Your task to perform on an android device: see creations saved in the google photos Image 0: 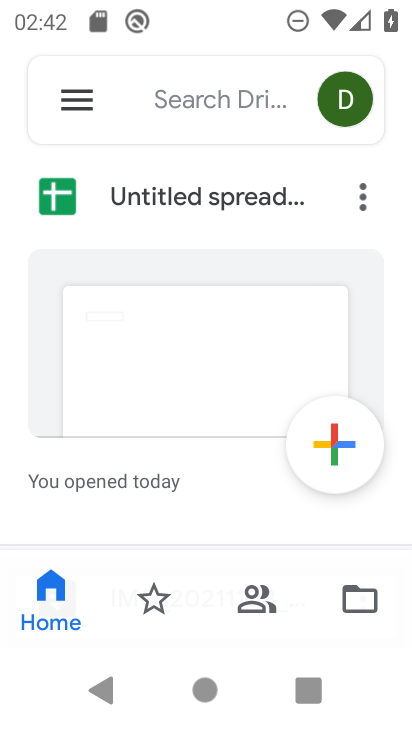
Step 0: press home button
Your task to perform on an android device: see creations saved in the google photos Image 1: 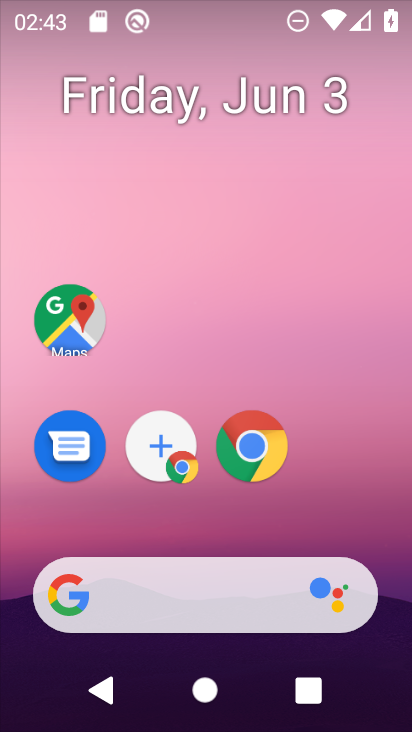
Step 1: drag from (233, 673) to (231, 141)
Your task to perform on an android device: see creations saved in the google photos Image 2: 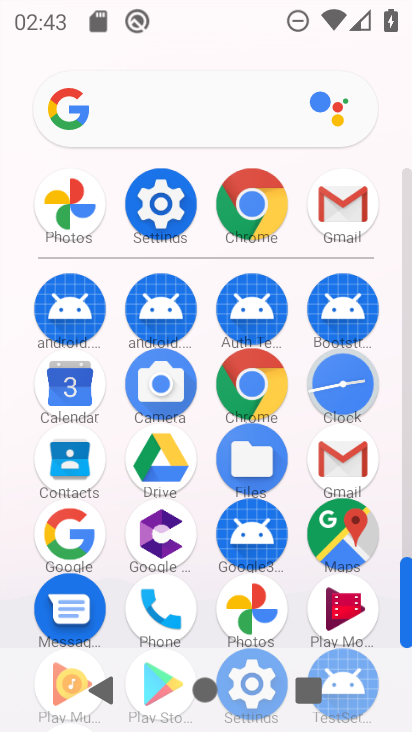
Step 2: click (249, 608)
Your task to perform on an android device: see creations saved in the google photos Image 3: 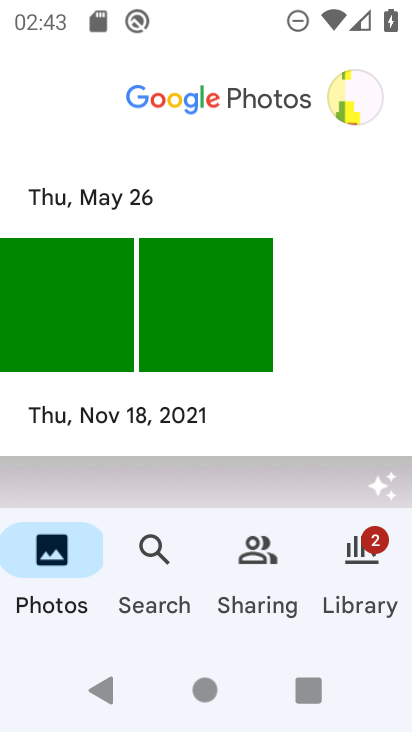
Step 3: click (142, 553)
Your task to perform on an android device: see creations saved in the google photos Image 4: 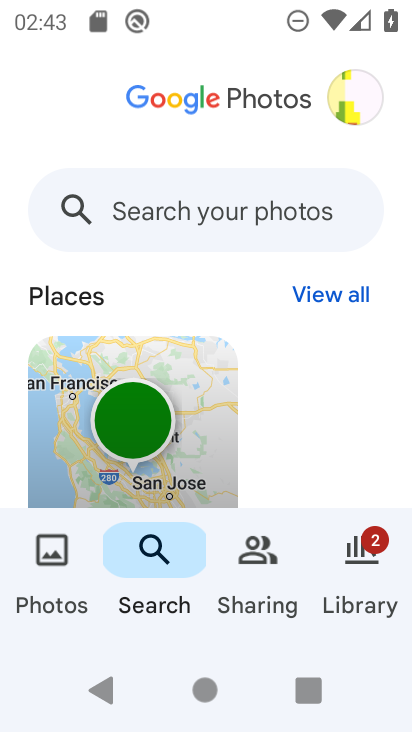
Step 4: click (168, 217)
Your task to perform on an android device: see creations saved in the google photos Image 5: 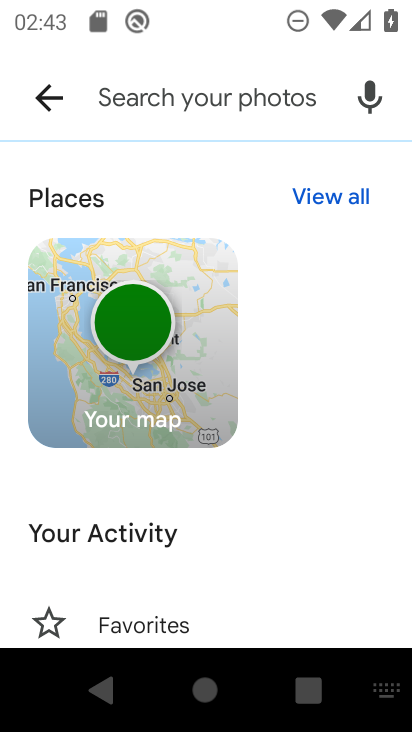
Step 5: drag from (262, 556) to (277, 89)
Your task to perform on an android device: see creations saved in the google photos Image 6: 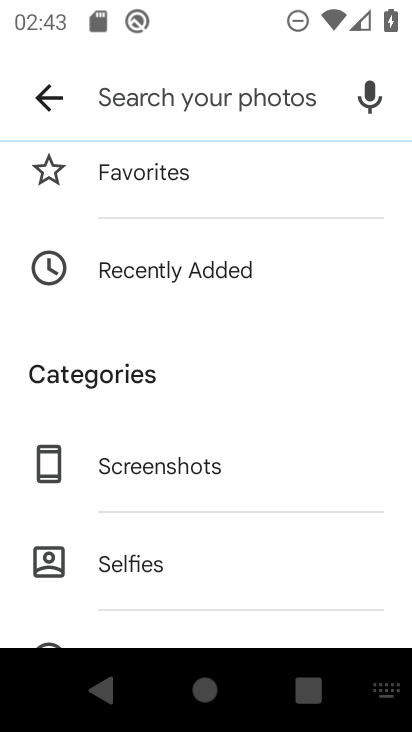
Step 6: drag from (266, 579) to (267, 120)
Your task to perform on an android device: see creations saved in the google photos Image 7: 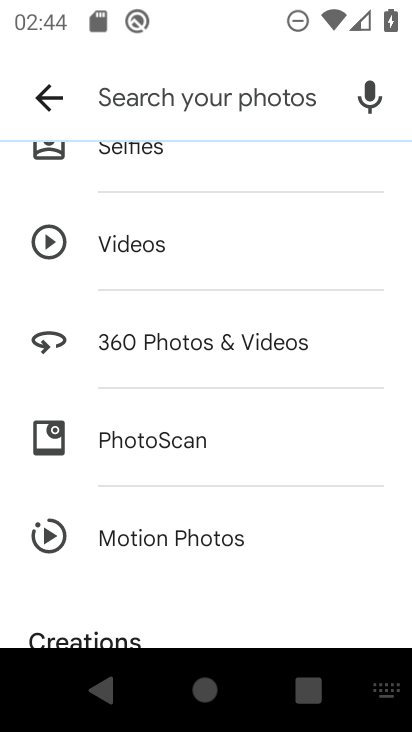
Step 7: click (136, 633)
Your task to perform on an android device: see creations saved in the google photos Image 8: 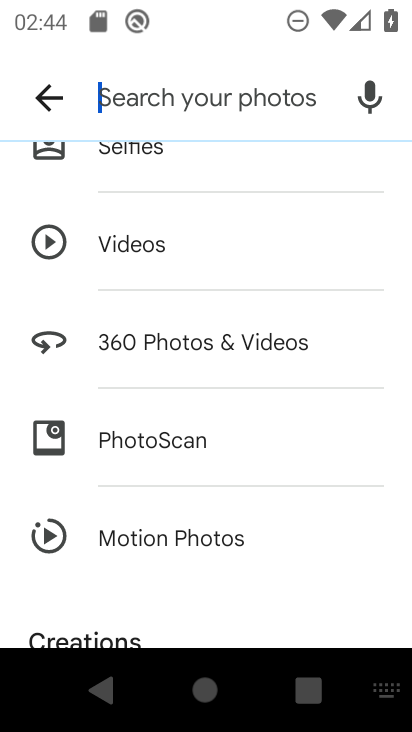
Step 8: drag from (176, 583) to (199, 207)
Your task to perform on an android device: see creations saved in the google photos Image 9: 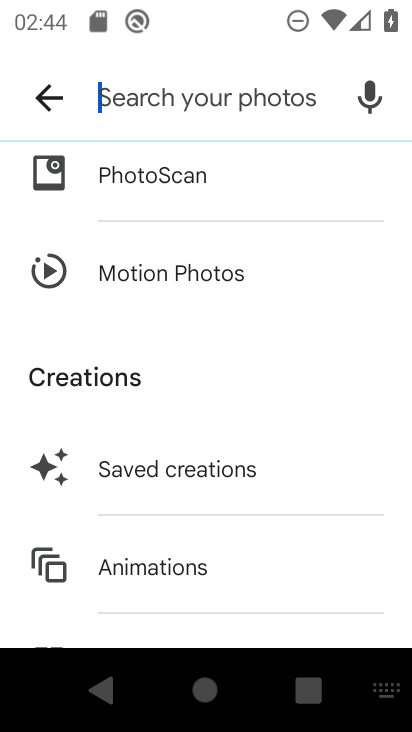
Step 9: click (176, 477)
Your task to perform on an android device: see creations saved in the google photos Image 10: 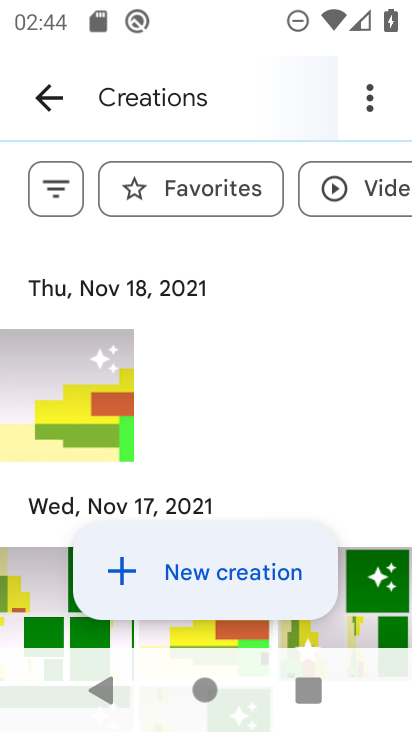
Step 10: task complete